Your task to perform on an android device: Open Youtube and go to the subscriptions tab Image 0: 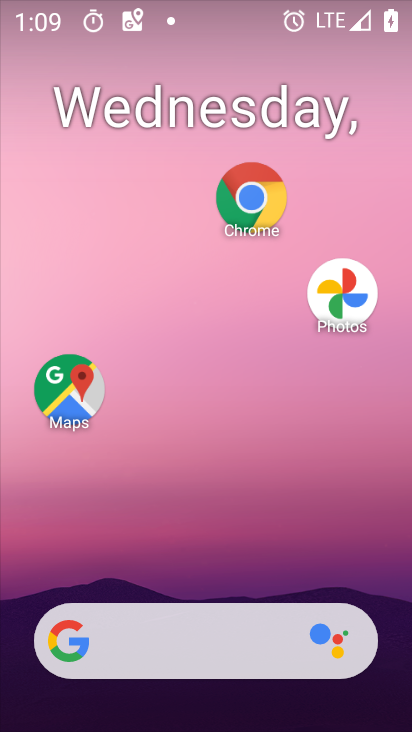
Step 0: drag from (284, 631) to (293, 182)
Your task to perform on an android device: Open Youtube and go to the subscriptions tab Image 1: 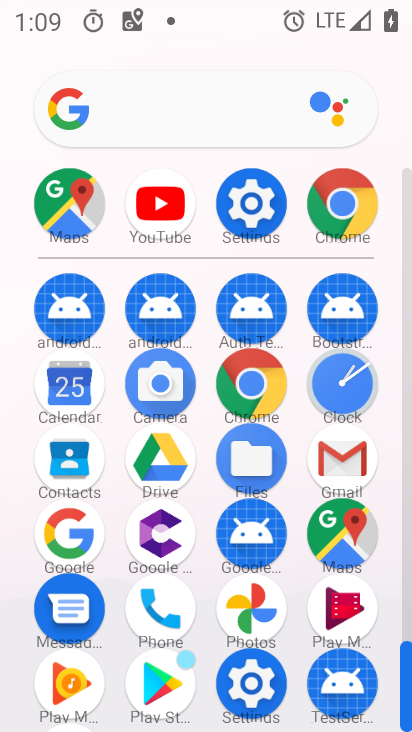
Step 1: drag from (221, 471) to (221, 188)
Your task to perform on an android device: Open Youtube and go to the subscriptions tab Image 2: 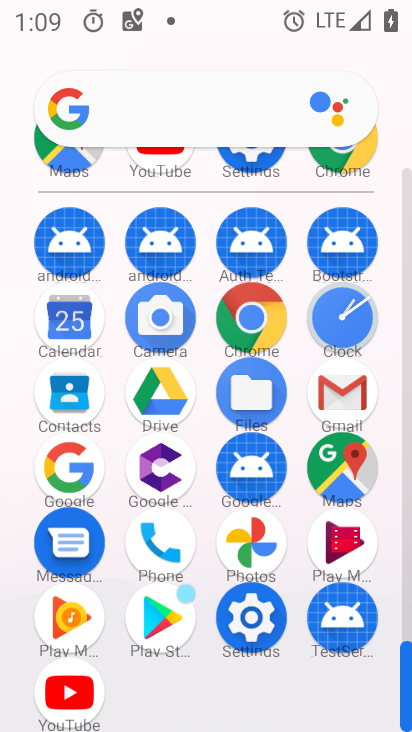
Step 2: click (87, 693)
Your task to perform on an android device: Open Youtube and go to the subscriptions tab Image 3: 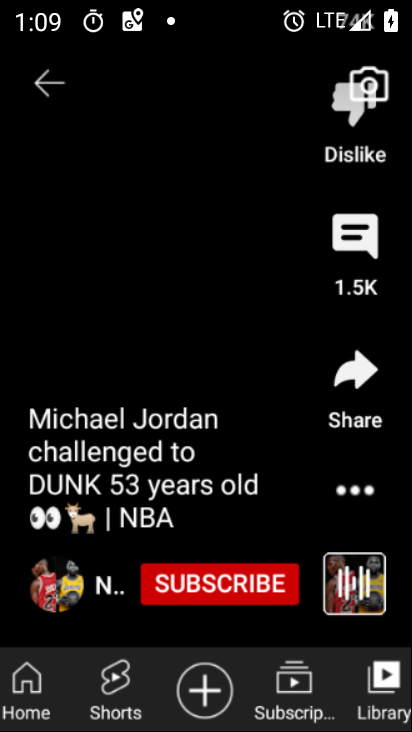
Step 3: click (41, 91)
Your task to perform on an android device: Open Youtube and go to the subscriptions tab Image 4: 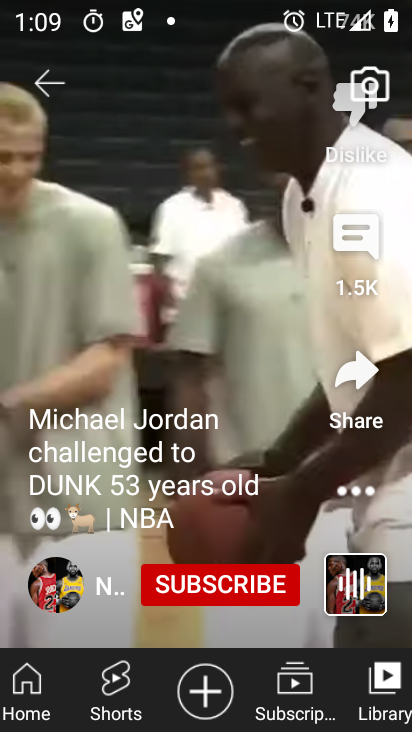
Step 4: click (41, 91)
Your task to perform on an android device: Open Youtube and go to the subscriptions tab Image 5: 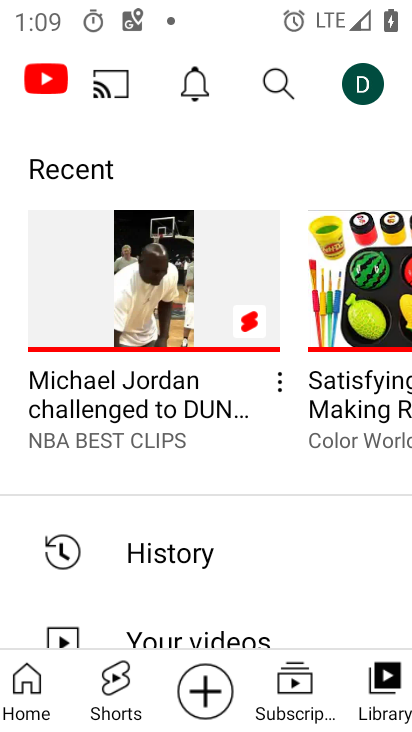
Step 5: click (299, 691)
Your task to perform on an android device: Open Youtube and go to the subscriptions tab Image 6: 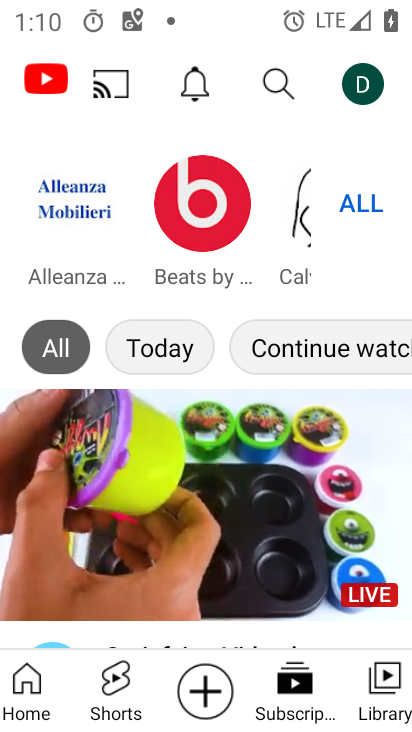
Step 6: task complete